Your task to perform on an android device: toggle notification dots Image 0: 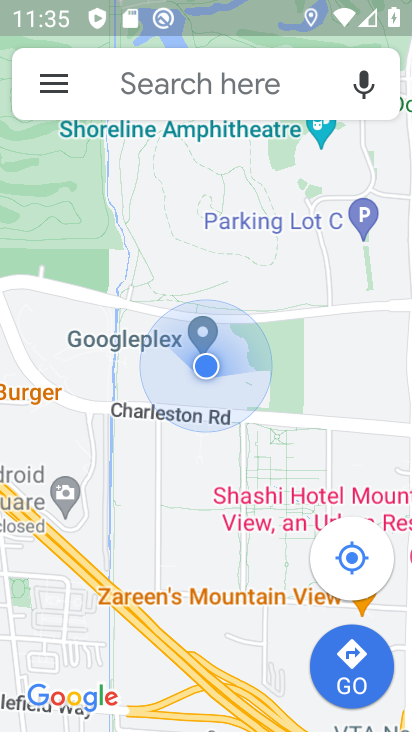
Step 0: press home button
Your task to perform on an android device: toggle notification dots Image 1: 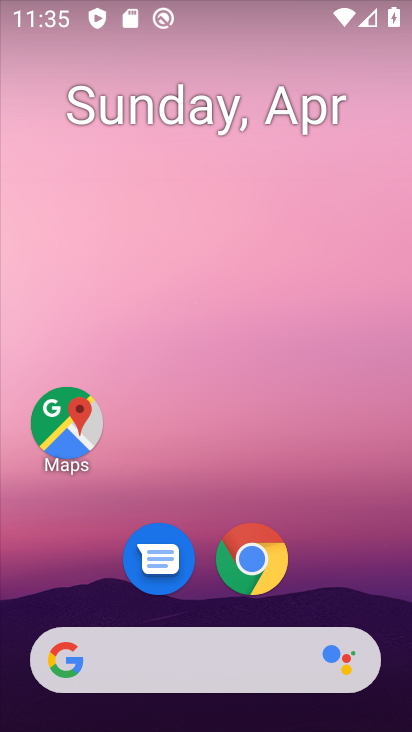
Step 1: drag from (335, 589) to (270, 34)
Your task to perform on an android device: toggle notification dots Image 2: 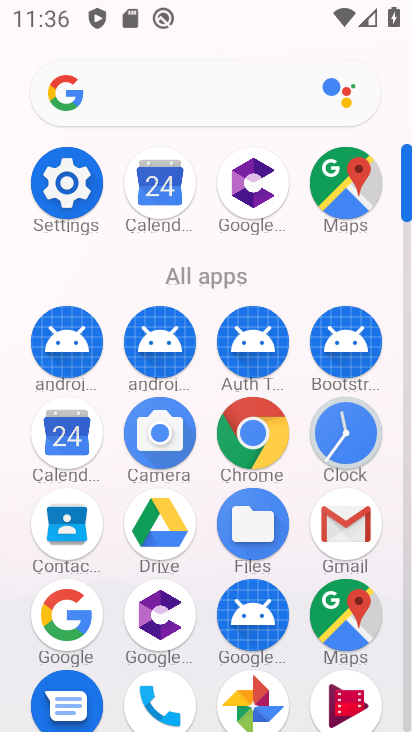
Step 2: click (72, 217)
Your task to perform on an android device: toggle notification dots Image 3: 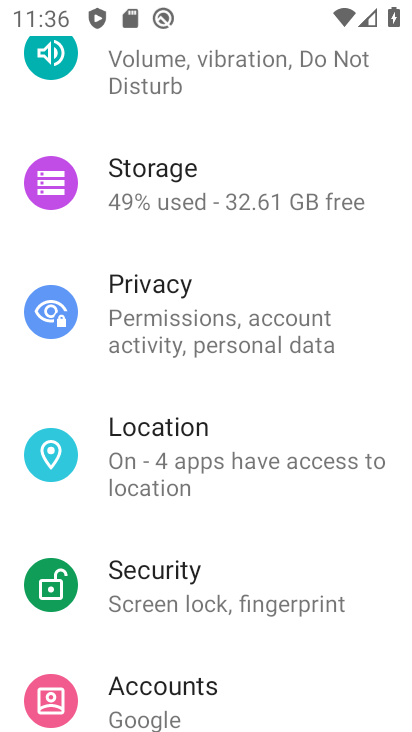
Step 3: drag from (178, 366) to (5, 490)
Your task to perform on an android device: toggle notification dots Image 4: 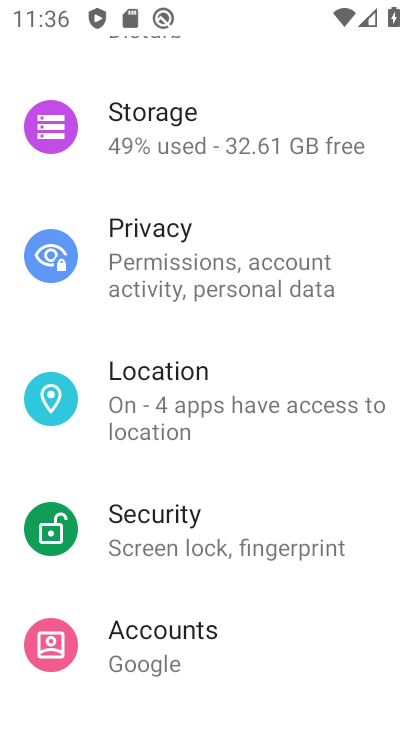
Step 4: drag from (178, 260) to (166, 609)
Your task to perform on an android device: toggle notification dots Image 5: 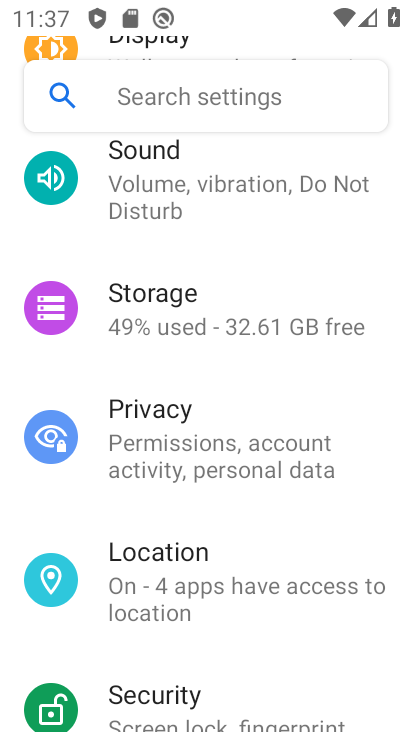
Step 5: drag from (189, 232) to (167, 603)
Your task to perform on an android device: toggle notification dots Image 6: 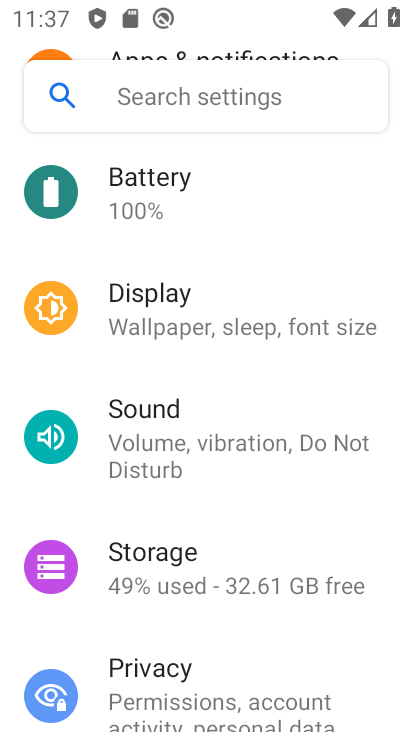
Step 6: drag from (167, 603) to (189, 669)
Your task to perform on an android device: toggle notification dots Image 7: 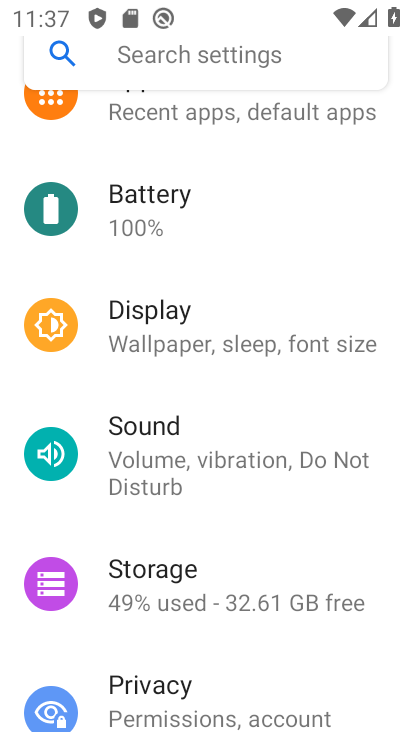
Step 7: drag from (283, 249) to (258, 585)
Your task to perform on an android device: toggle notification dots Image 8: 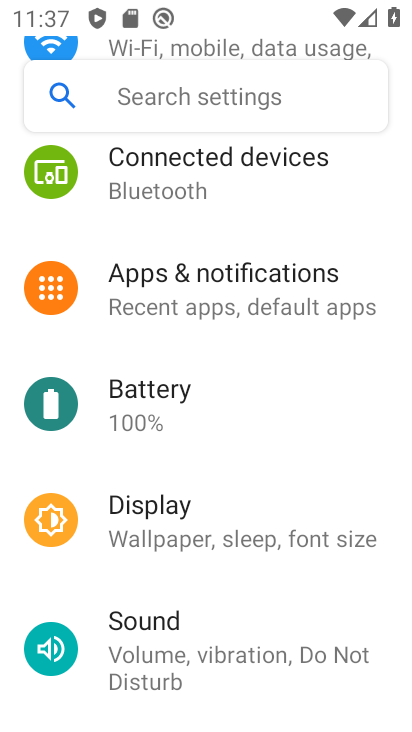
Step 8: drag from (280, 228) to (252, 696)
Your task to perform on an android device: toggle notification dots Image 9: 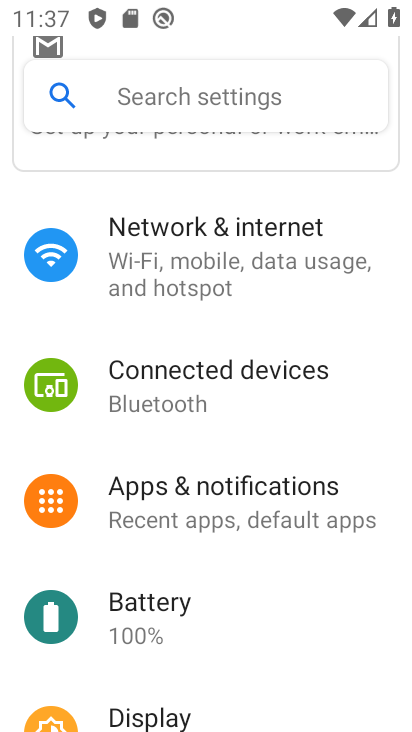
Step 9: click (237, 250)
Your task to perform on an android device: toggle notification dots Image 10: 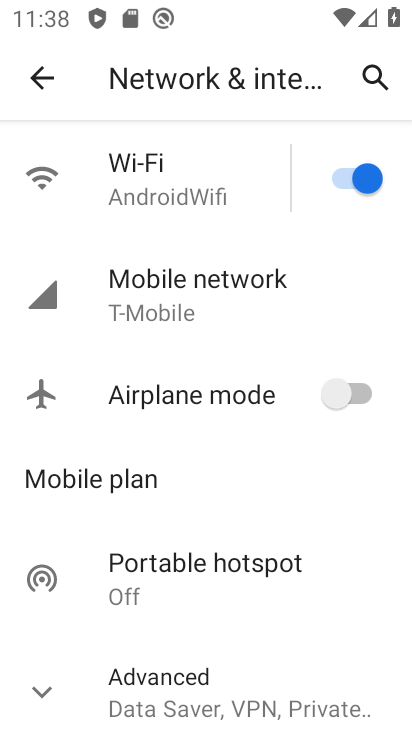
Step 10: drag from (216, 561) to (220, 228)
Your task to perform on an android device: toggle notification dots Image 11: 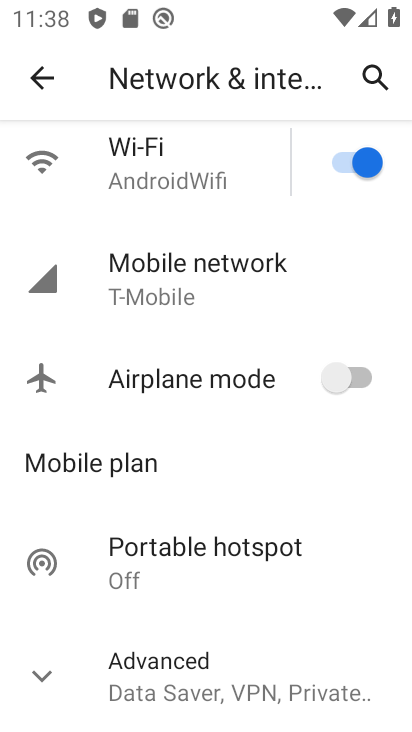
Step 11: click (37, 83)
Your task to perform on an android device: toggle notification dots Image 12: 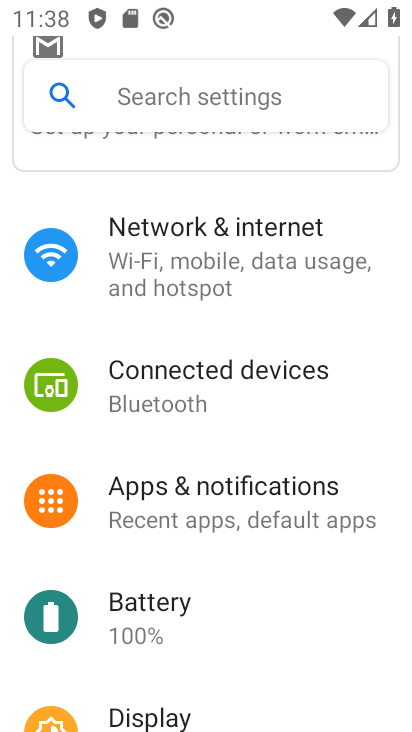
Step 12: click (189, 497)
Your task to perform on an android device: toggle notification dots Image 13: 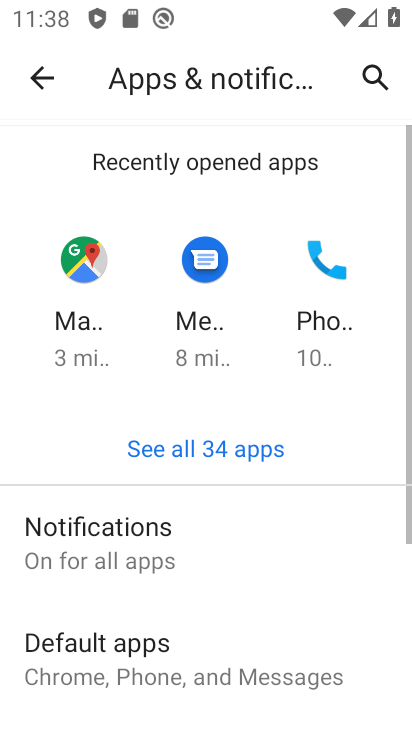
Step 13: drag from (199, 518) to (196, 71)
Your task to perform on an android device: toggle notification dots Image 14: 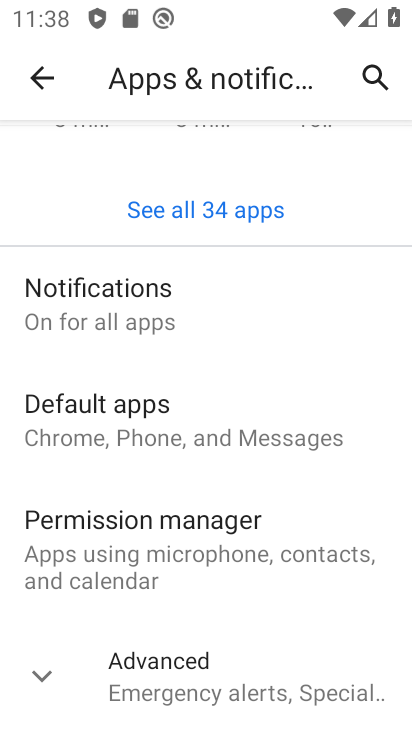
Step 14: click (270, 636)
Your task to perform on an android device: toggle notification dots Image 15: 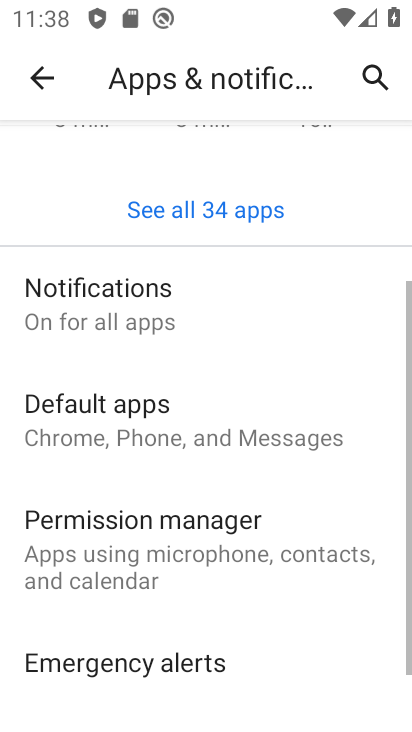
Step 15: click (221, 322)
Your task to perform on an android device: toggle notification dots Image 16: 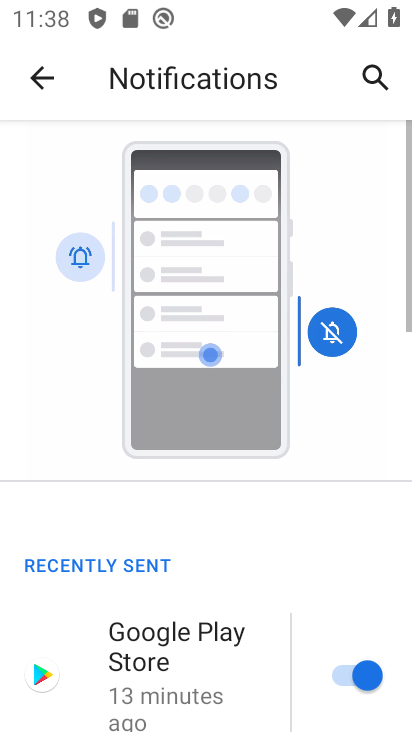
Step 16: drag from (147, 632) to (134, 262)
Your task to perform on an android device: toggle notification dots Image 17: 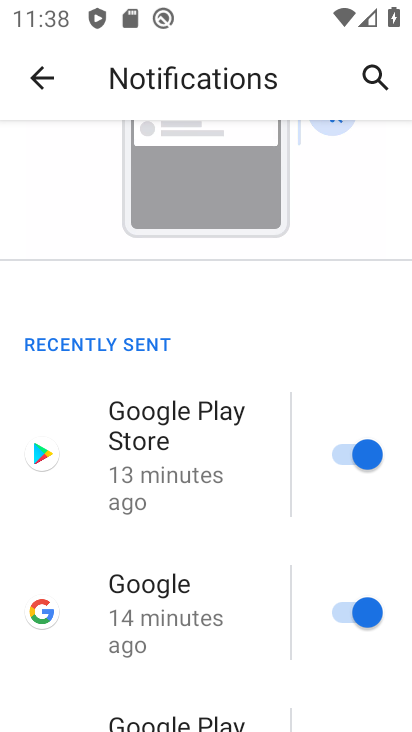
Step 17: drag from (191, 628) to (150, 277)
Your task to perform on an android device: toggle notification dots Image 18: 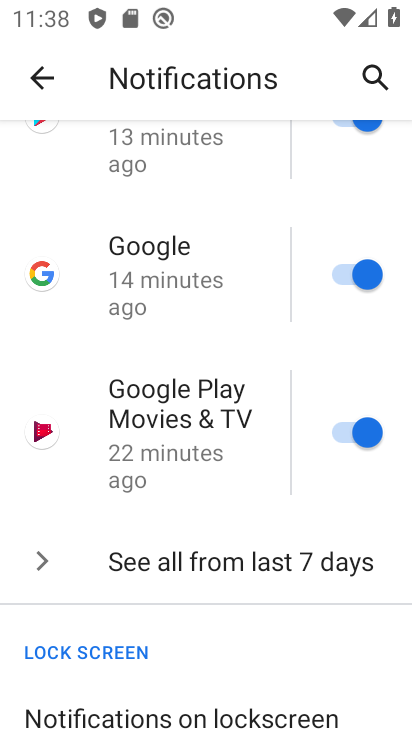
Step 18: drag from (158, 638) to (143, 373)
Your task to perform on an android device: toggle notification dots Image 19: 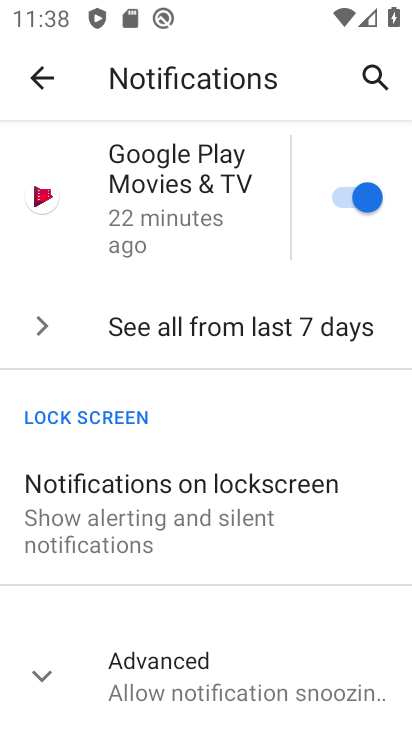
Step 19: click (208, 637)
Your task to perform on an android device: toggle notification dots Image 20: 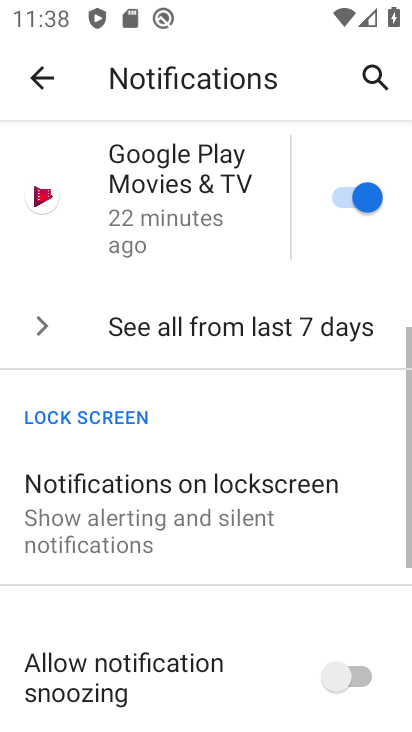
Step 20: drag from (228, 588) to (233, 226)
Your task to perform on an android device: toggle notification dots Image 21: 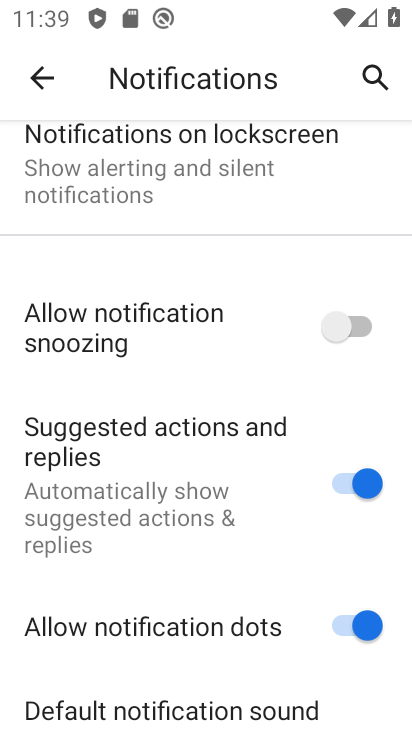
Step 21: click (338, 640)
Your task to perform on an android device: toggle notification dots Image 22: 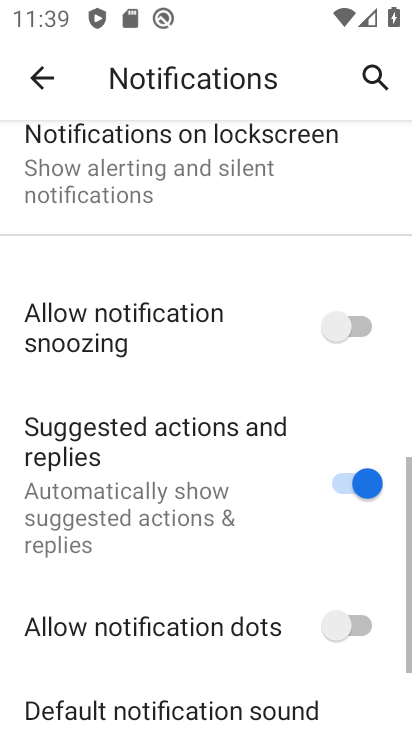
Step 22: task complete